Your task to perform on an android device: Show the shopping cart on target.com. Image 0: 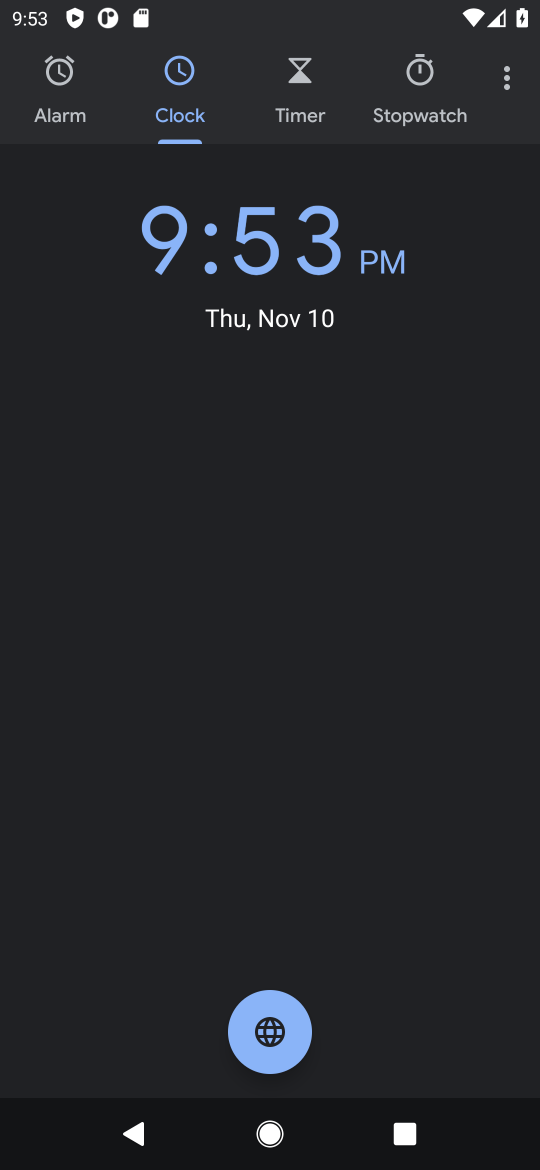
Step 0: press home button
Your task to perform on an android device: Show the shopping cart on target.com. Image 1: 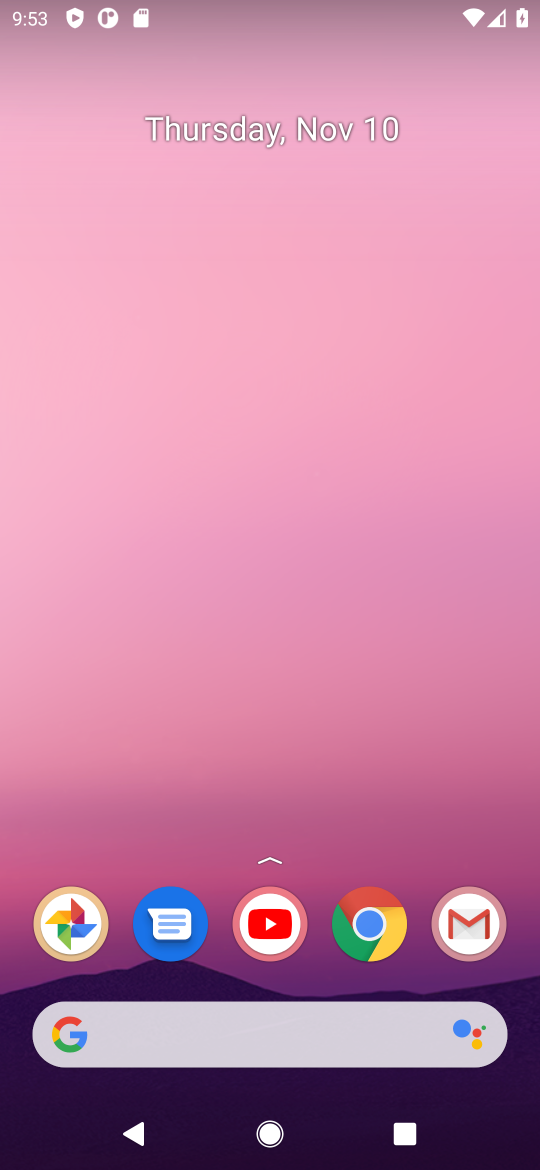
Step 1: click (364, 935)
Your task to perform on an android device: Show the shopping cart on target.com. Image 2: 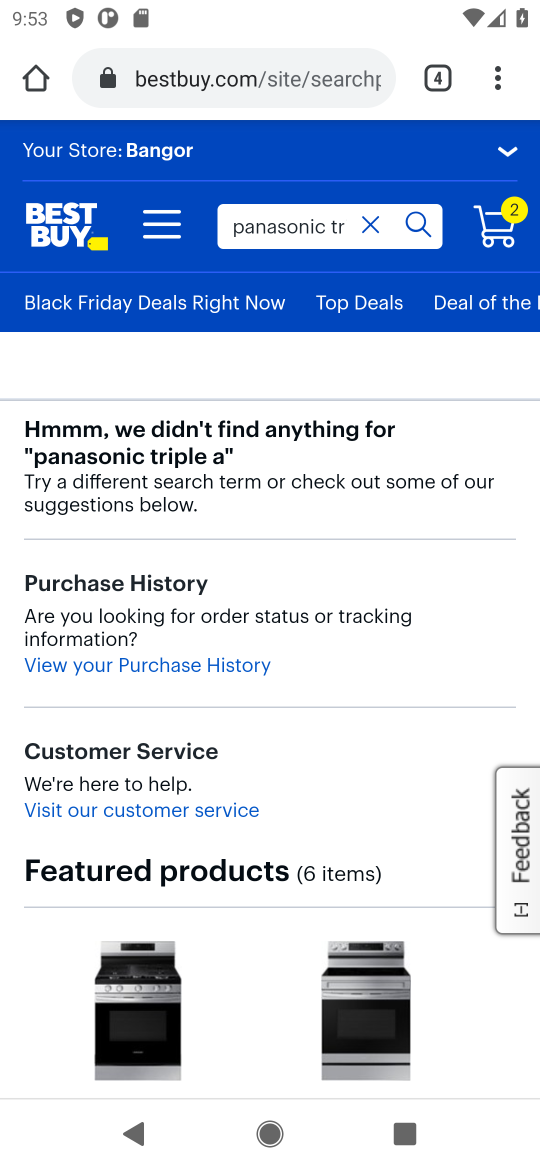
Step 2: click (197, 79)
Your task to perform on an android device: Show the shopping cart on target.com. Image 3: 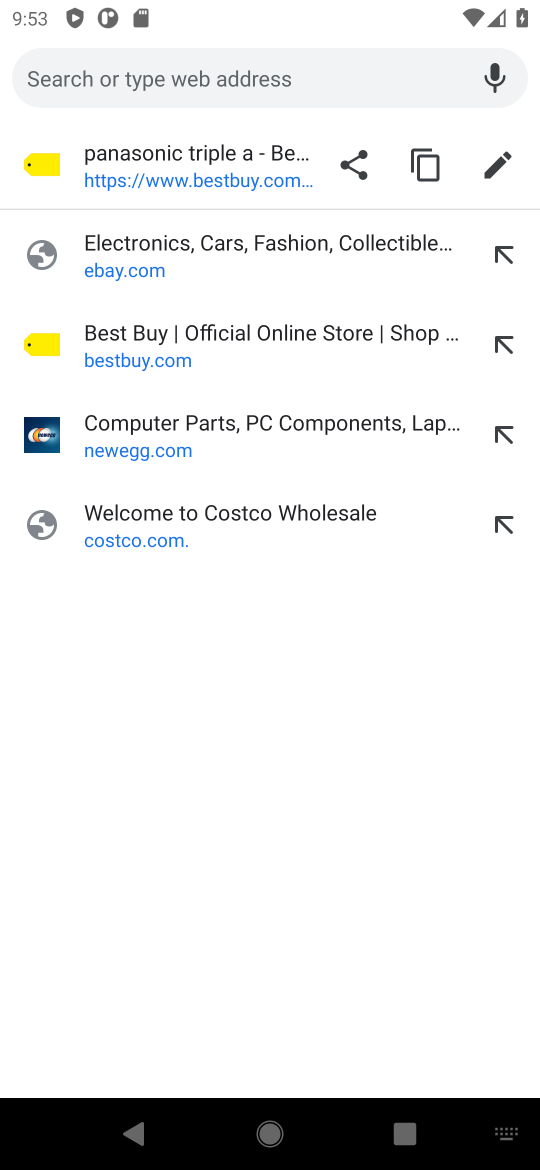
Step 3: type "target.com"
Your task to perform on an android device: Show the shopping cart on target.com. Image 4: 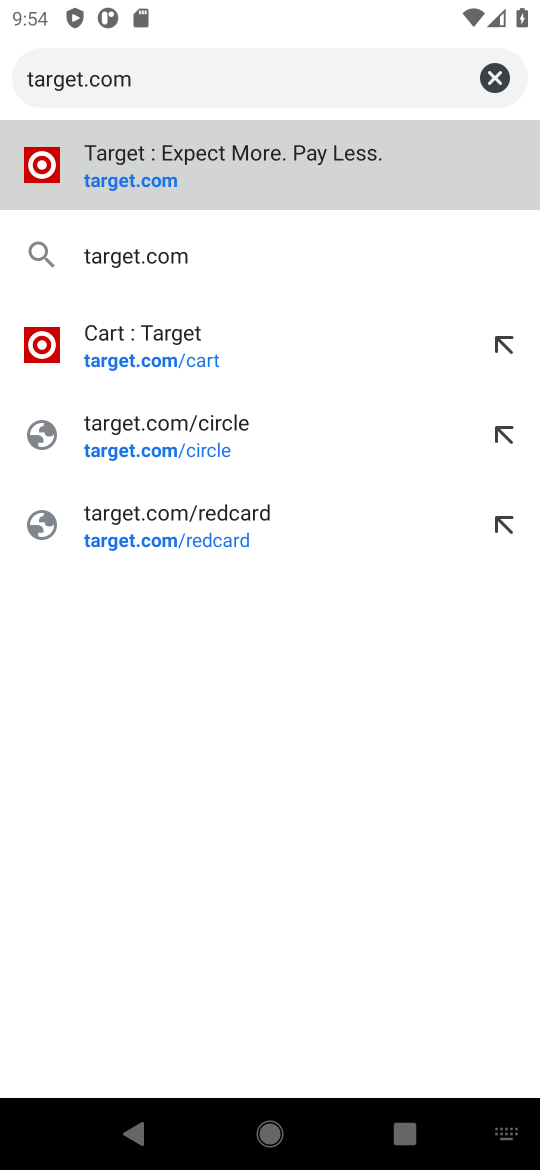
Step 4: click (117, 183)
Your task to perform on an android device: Show the shopping cart on target.com. Image 5: 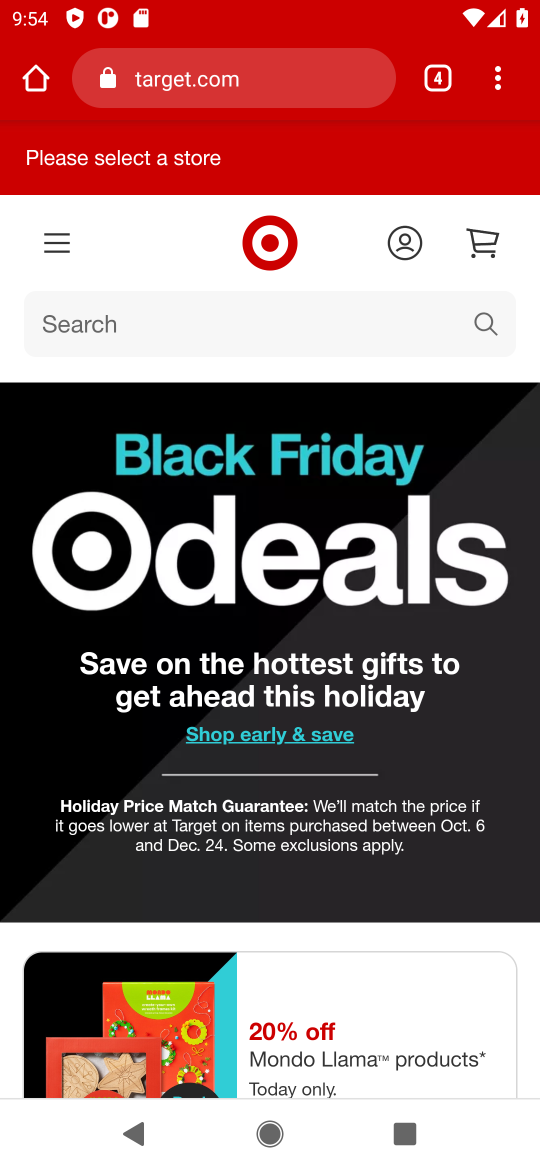
Step 5: click (494, 254)
Your task to perform on an android device: Show the shopping cart on target.com. Image 6: 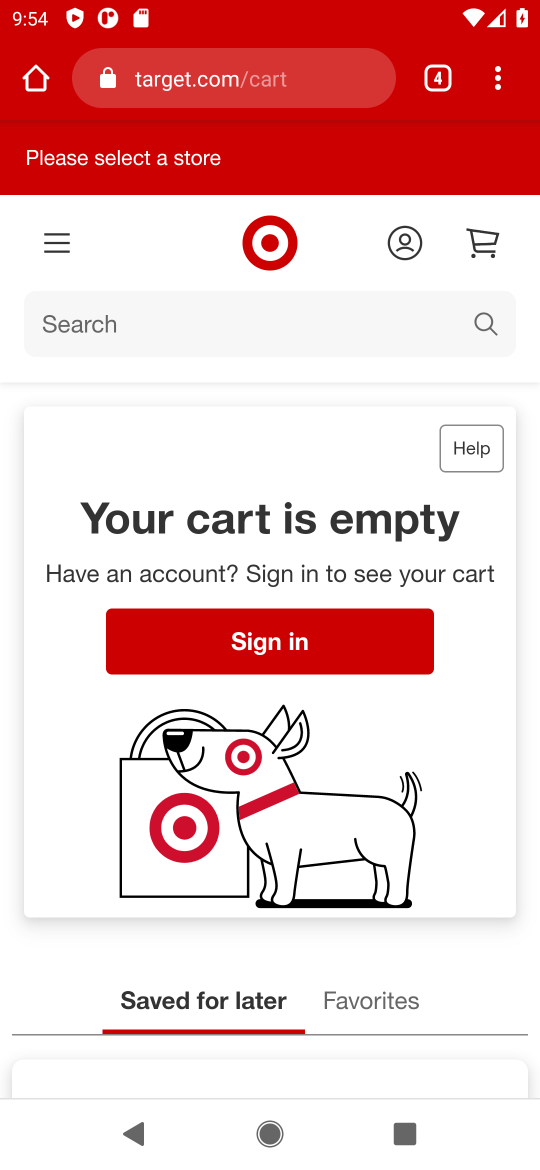
Step 6: task complete